Your task to perform on an android device: Show me the alarms in the clock app Image 0: 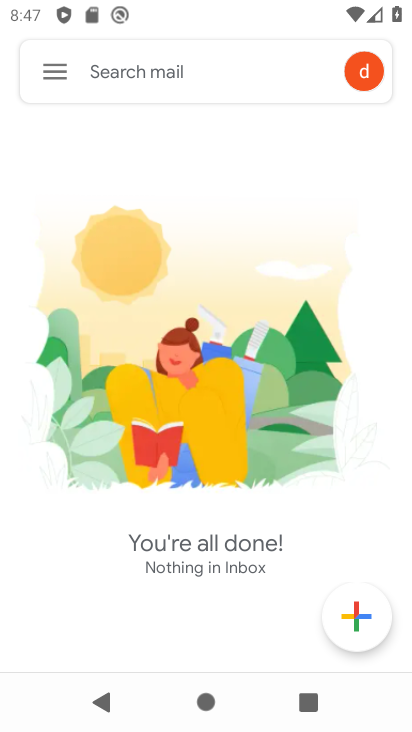
Step 0: press home button
Your task to perform on an android device: Show me the alarms in the clock app Image 1: 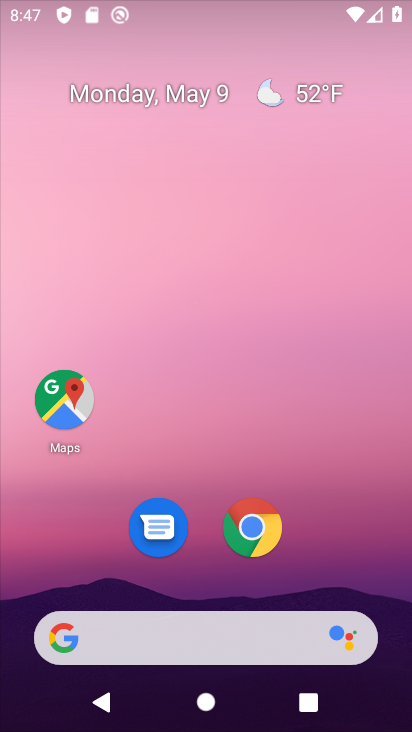
Step 1: drag from (330, 585) to (289, 189)
Your task to perform on an android device: Show me the alarms in the clock app Image 2: 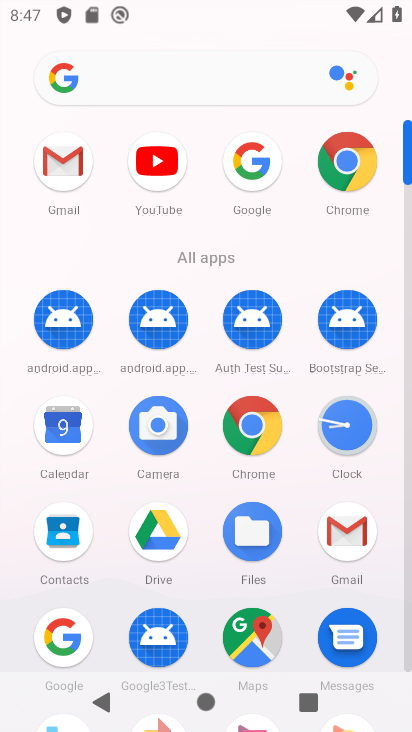
Step 2: click (342, 421)
Your task to perform on an android device: Show me the alarms in the clock app Image 3: 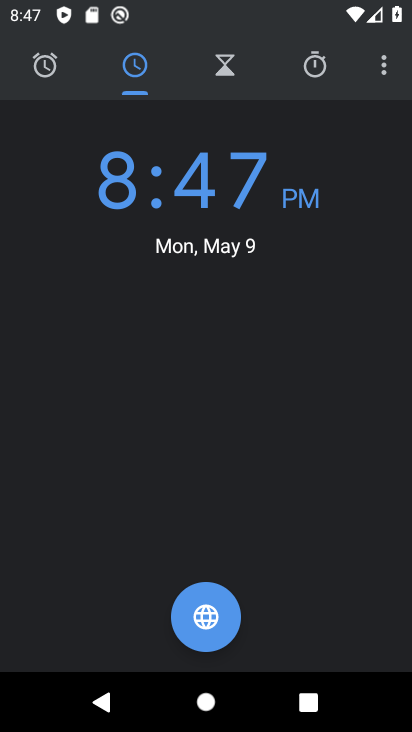
Step 3: click (38, 70)
Your task to perform on an android device: Show me the alarms in the clock app Image 4: 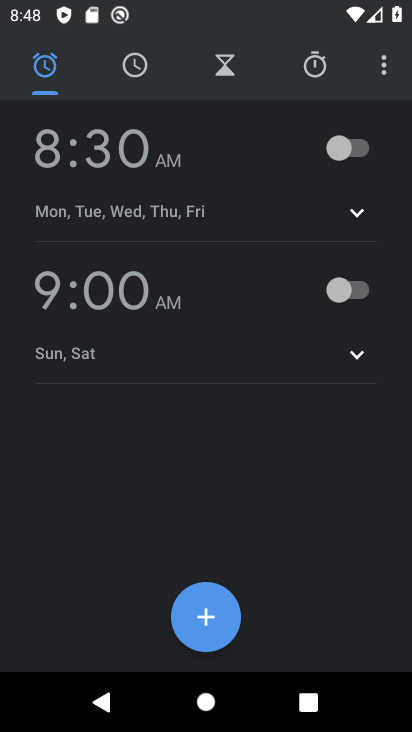
Step 4: task complete